Your task to perform on an android device: refresh tabs in the chrome app Image 0: 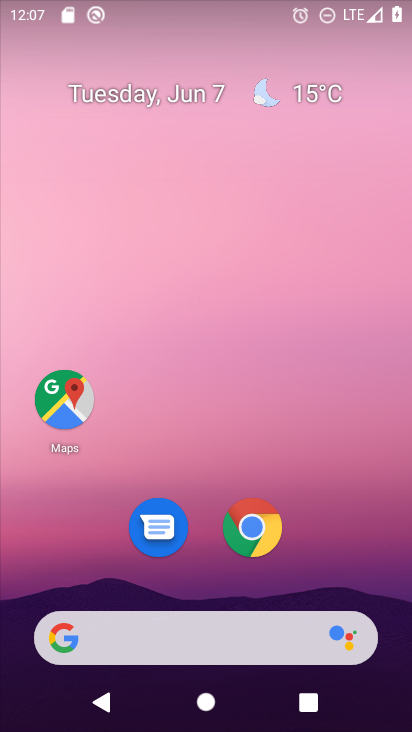
Step 0: drag from (362, 570) to (340, 182)
Your task to perform on an android device: refresh tabs in the chrome app Image 1: 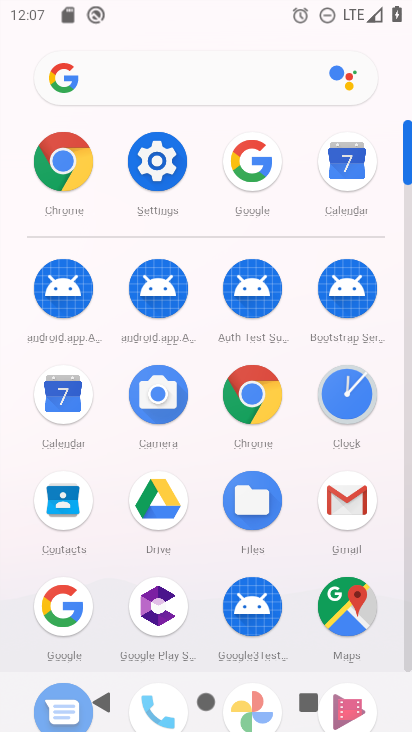
Step 1: click (264, 401)
Your task to perform on an android device: refresh tabs in the chrome app Image 2: 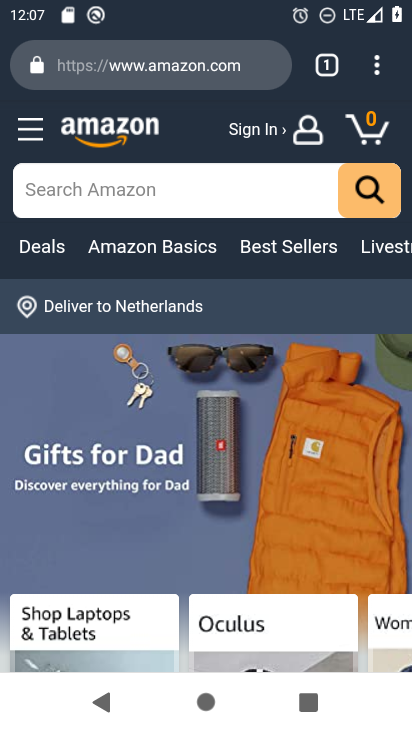
Step 2: click (381, 74)
Your task to perform on an android device: refresh tabs in the chrome app Image 3: 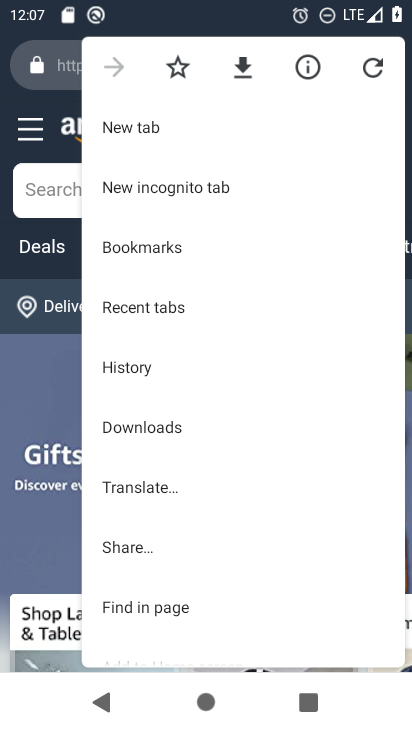
Step 3: drag from (271, 522) to (271, 339)
Your task to perform on an android device: refresh tabs in the chrome app Image 4: 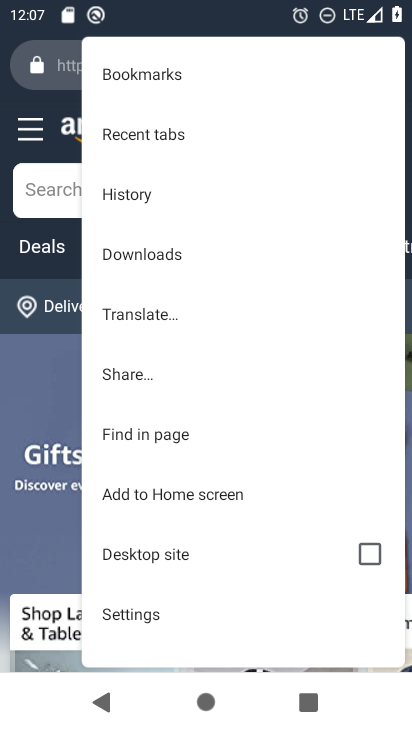
Step 4: drag from (276, 542) to (287, 303)
Your task to perform on an android device: refresh tabs in the chrome app Image 5: 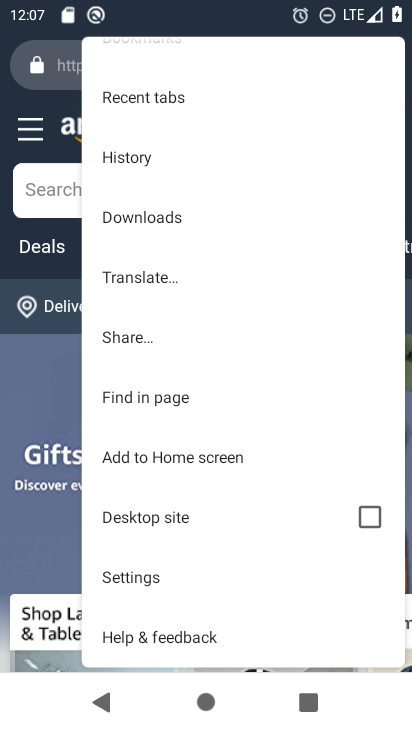
Step 5: drag from (245, 196) to (245, 460)
Your task to perform on an android device: refresh tabs in the chrome app Image 6: 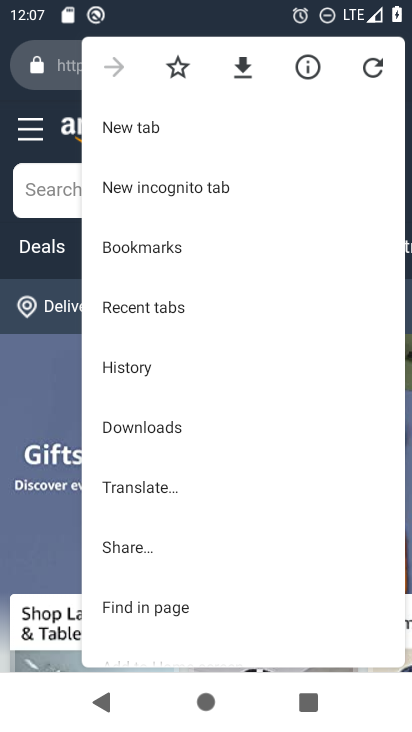
Step 6: drag from (274, 222) to (275, 382)
Your task to perform on an android device: refresh tabs in the chrome app Image 7: 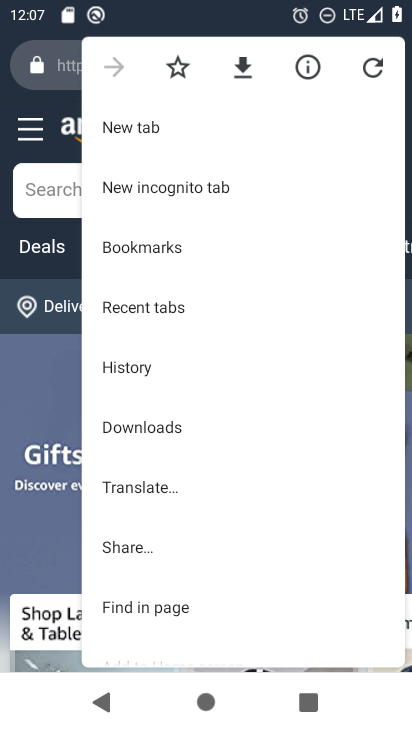
Step 7: click (375, 71)
Your task to perform on an android device: refresh tabs in the chrome app Image 8: 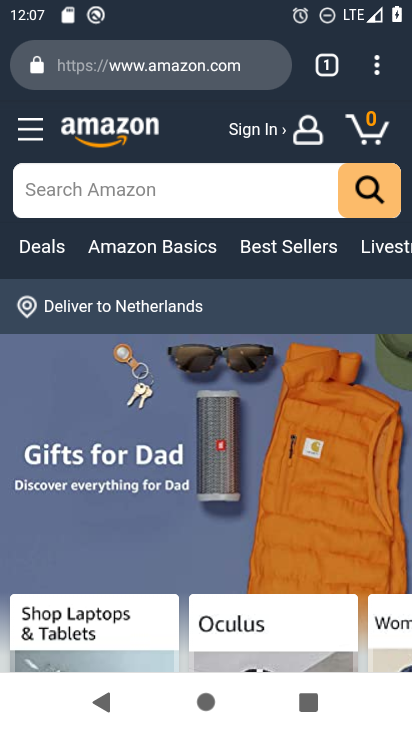
Step 8: task complete